Your task to perform on an android device: Open the web browser Image 0: 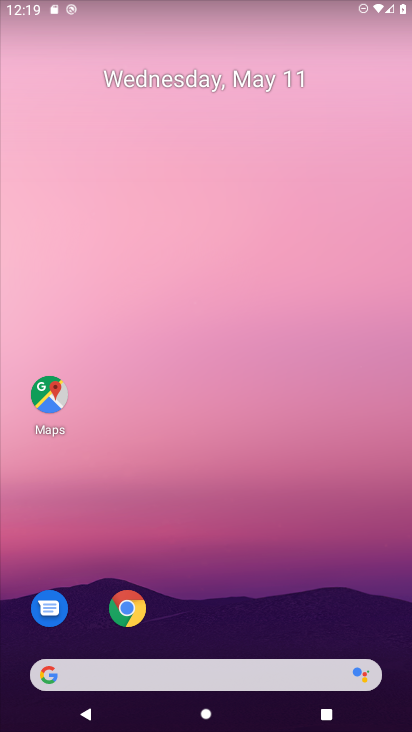
Step 0: click (128, 605)
Your task to perform on an android device: Open the web browser Image 1: 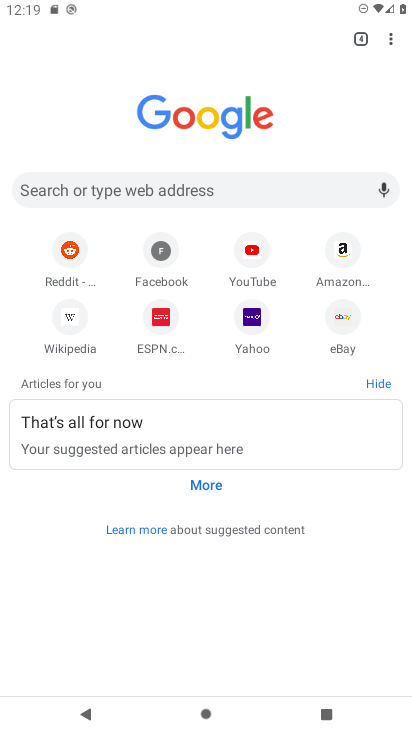
Step 1: task complete